Your task to perform on an android device: check storage Image 0: 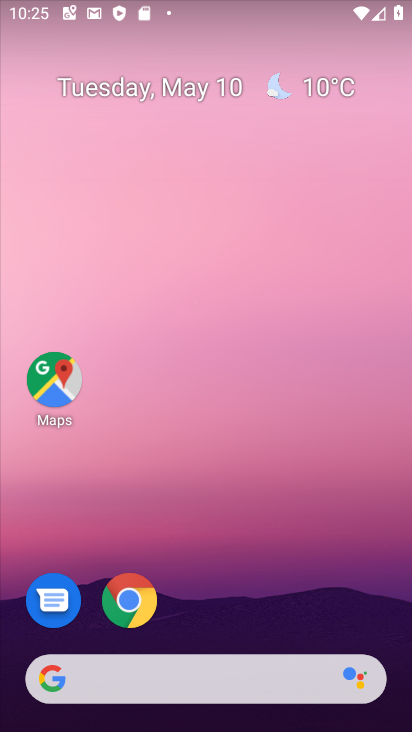
Step 0: drag from (241, 595) to (215, 29)
Your task to perform on an android device: check storage Image 1: 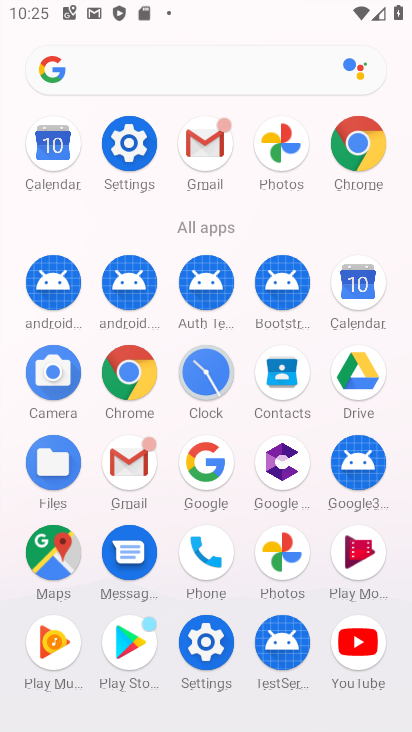
Step 1: click (126, 139)
Your task to perform on an android device: check storage Image 2: 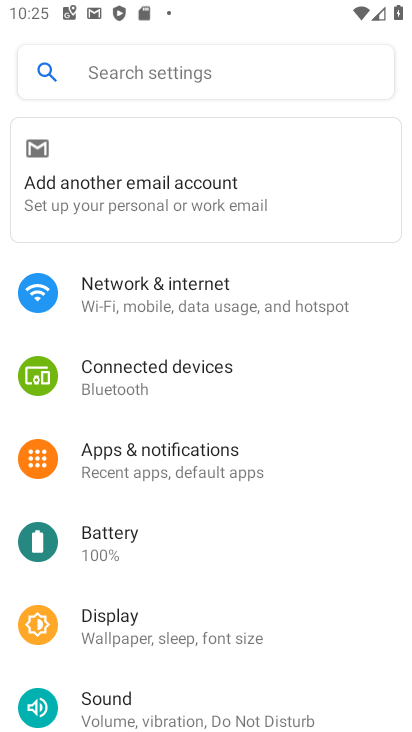
Step 2: drag from (249, 626) to (249, 220)
Your task to perform on an android device: check storage Image 3: 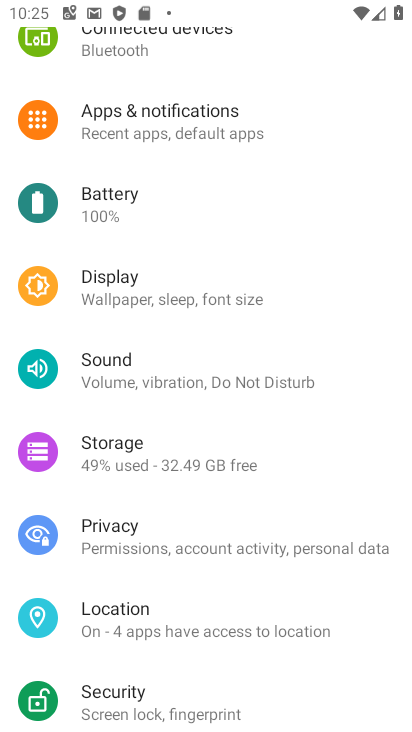
Step 3: click (130, 454)
Your task to perform on an android device: check storage Image 4: 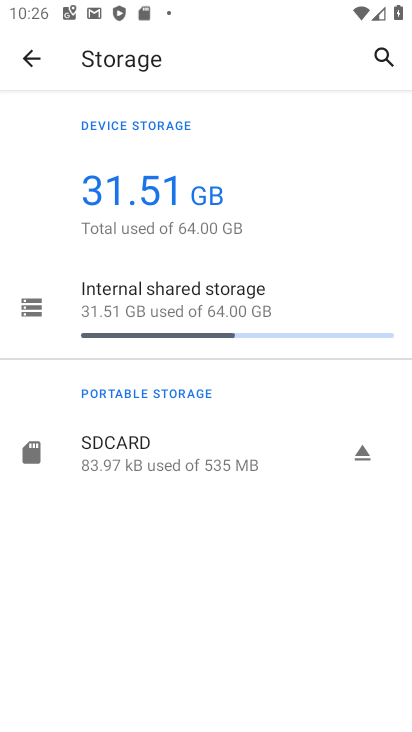
Step 4: task complete